Your task to perform on an android device: turn on priority inbox in the gmail app Image 0: 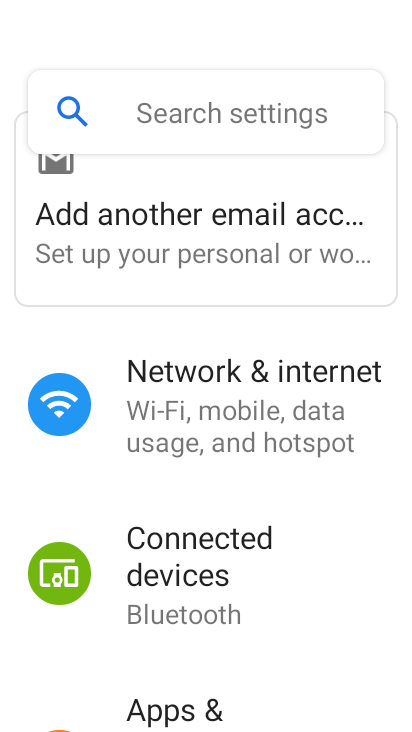
Step 0: press home button
Your task to perform on an android device: turn on priority inbox in the gmail app Image 1: 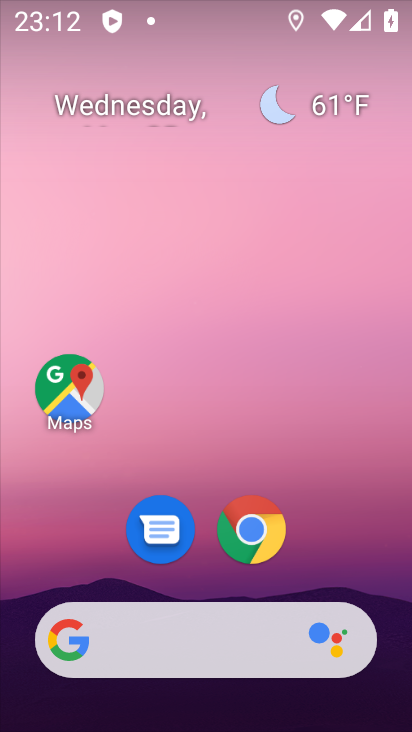
Step 1: drag from (383, 569) to (406, 105)
Your task to perform on an android device: turn on priority inbox in the gmail app Image 2: 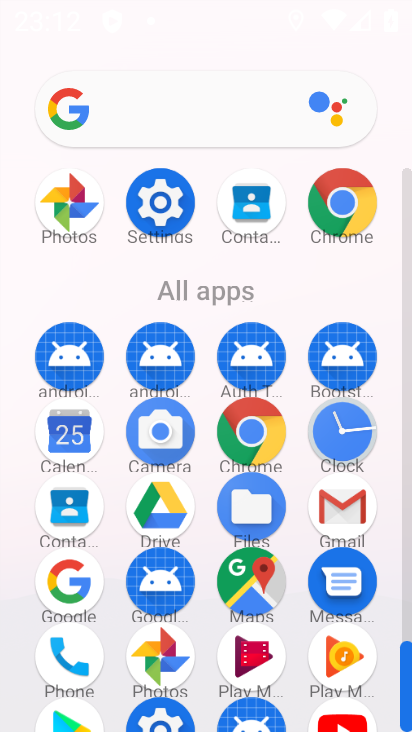
Step 2: click (344, 514)
Your task to perform on an android device: turn on priority inbox in the gmail app Image 3: 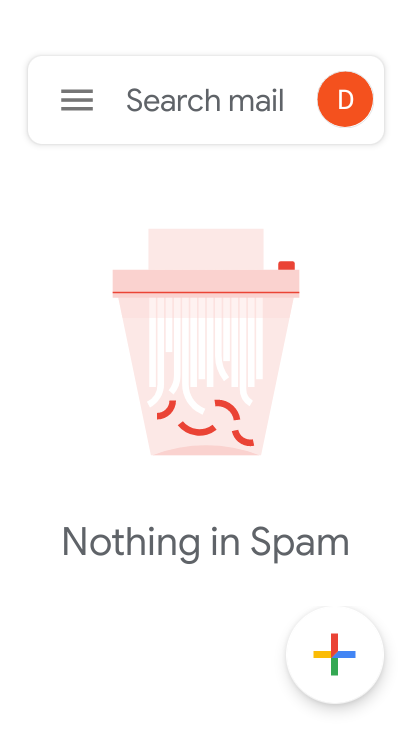
Step 3: click (80, 101)
Your task to perform on an android device: turn on priority inbox in the gmail app Image 4: 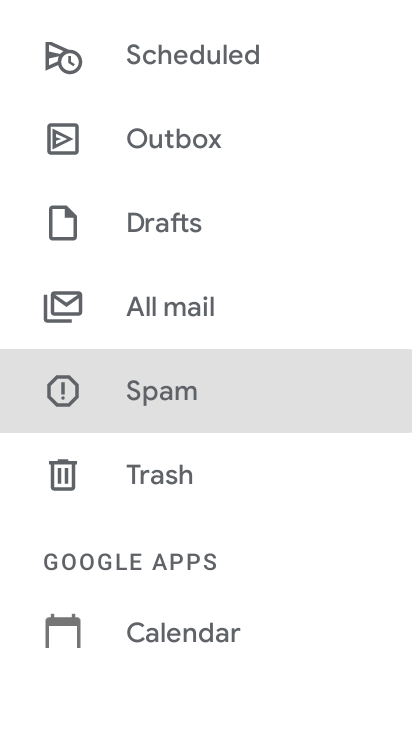
Step 4: drag from (302, 220) to (310, 298)
Your task to perform on an android device: turn on priority inbox in the gmail app Image 5: 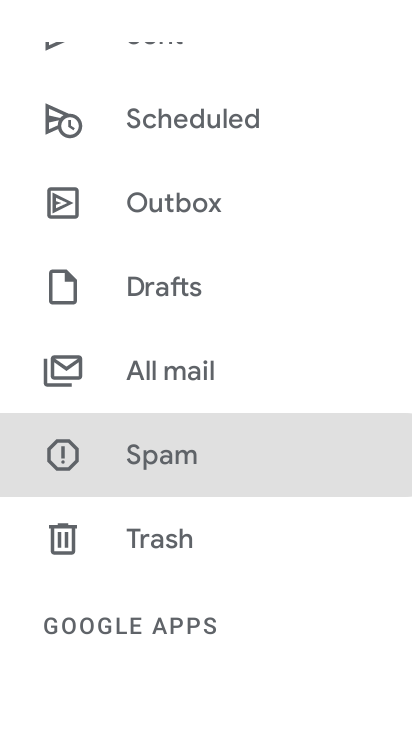
Step 5: drag from (331, 187) to (330, 301)
Your task to perform on an android device: turn on priority inbox in the gmail app Image 6: 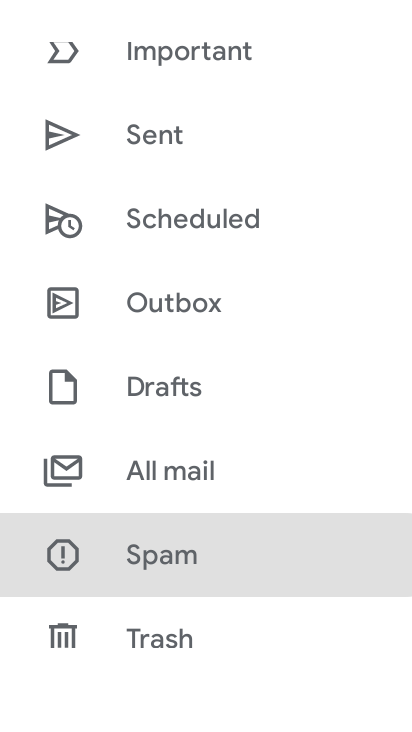
Step 6: drag from (324, 180) to (336, 303)
Your task to perform on an android device: turn on priority inbox in the gmail app Image 7: 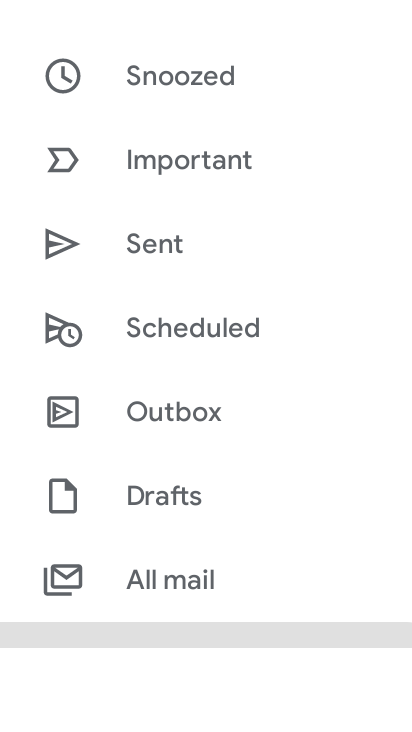
Step 7: drag from (336, 186) to (330, 301)
Your task to perform on an android device: turn on priority inbox in the gmail app Image 8: 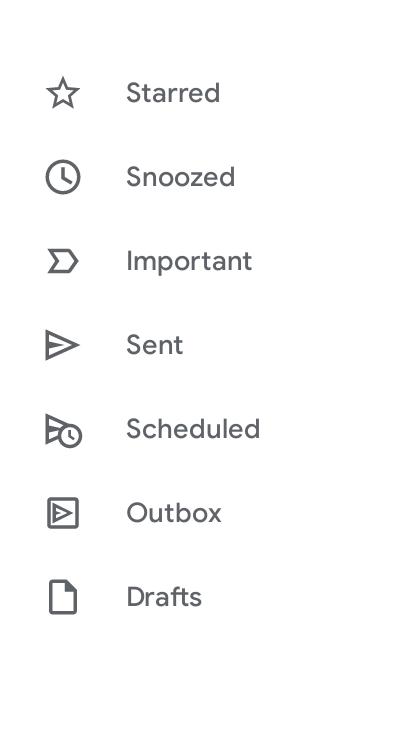
Step 8: drag from (309, 164) to (309, 307)
Your task to perform on an android device: turn on priority inbox in the gmail app Image 9: 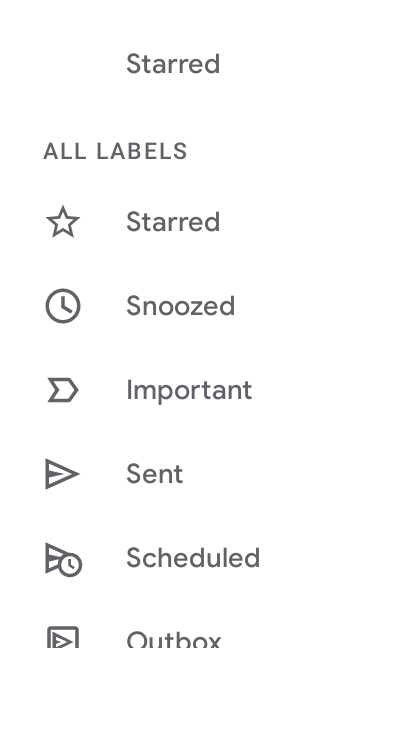
Step 9: drag from (303, 197) to (307, 318)
Your task to perform on an android device: turn on priority inbox in the gmail app Image 10: 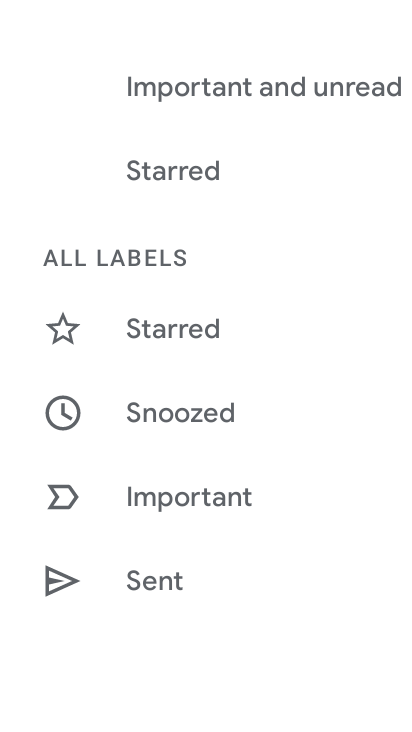
Step 10: drag from (309, 186) to (315, 285)
Your task to perform on an android device: turn on priority inbox in the gmail app Image 11: 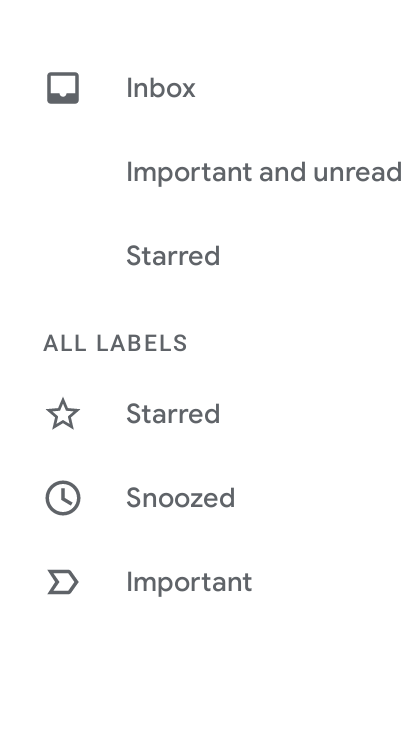
Step 11: drag from (304, 140) to (298, 253)
Your task to perform on an android device: turn on priority inbox in the gmail app Image 12: 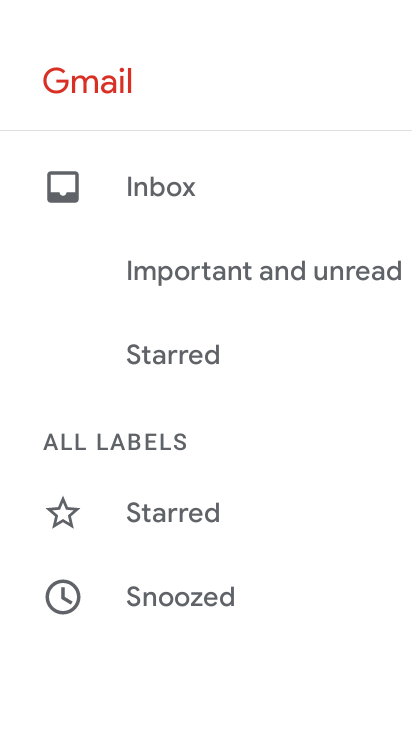
Step 12: drag from (286, 155) to (287, 259)
Your task to perform on an android device: turn on priority inbox in the gmail app Image 13: 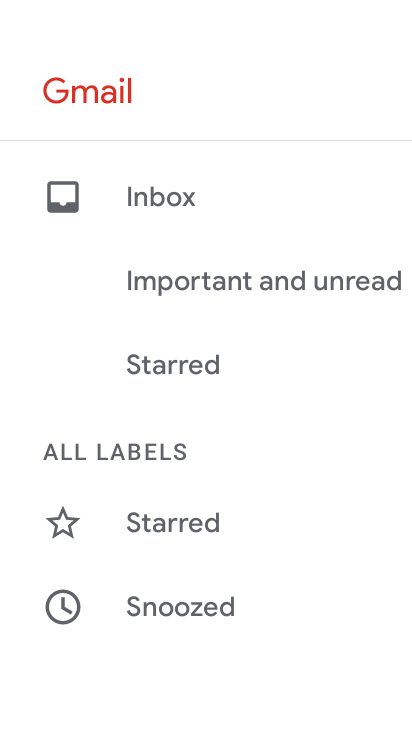
Step 13: drag from (291, 422) to (321, 285)
Your task to perform on an android device: turn on priority inbox in the gmail app Image 14: 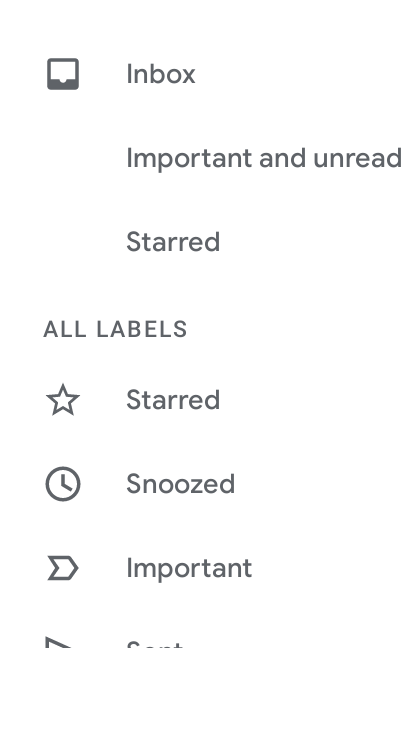
Step 14: drag from (314, 459) to (316, 375)
Your task to perform on an android device: turn on priority inbox in the gmail app Image 15: 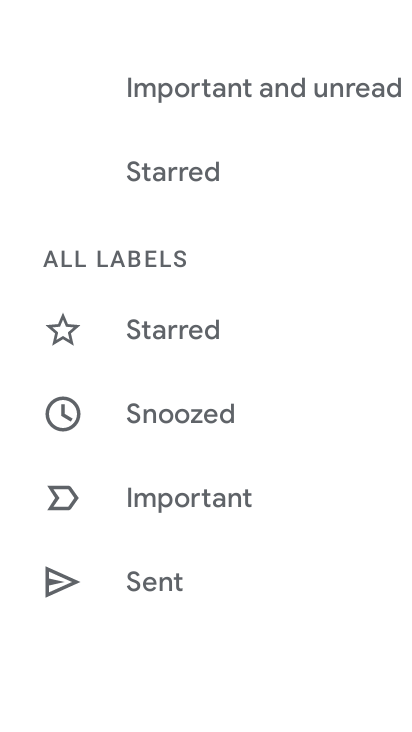
Step 15: drag from (314, 517) to (321, 418)
Your task to perform on an android device: turn on priority inbox in the gmail app Image 16: 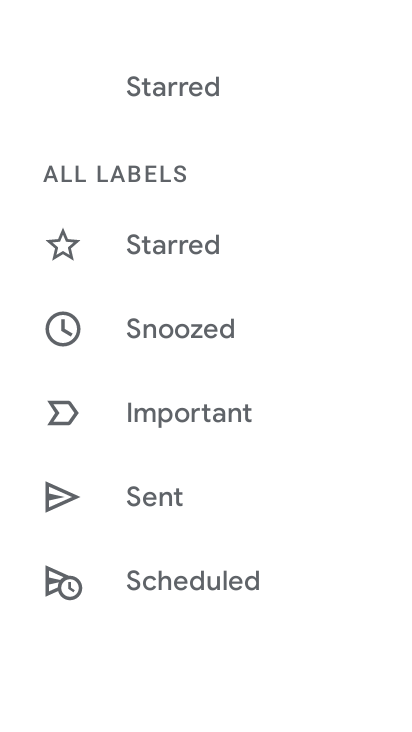
Step 16: drag from (328, 521) to (341, 396)
Your task to perform on an android device: turn on priority inbox in the gmail app Image 17: 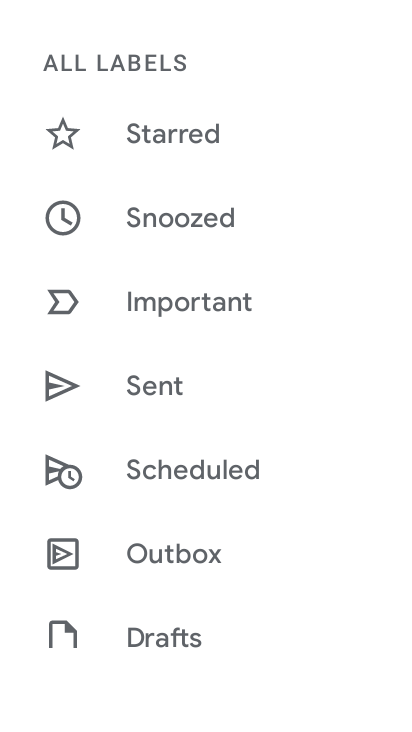
Step 17: drag from (332, 521) to (336, 438)
Your task to perform on an android device: turn on priority inbox in the gmail app Image 18: 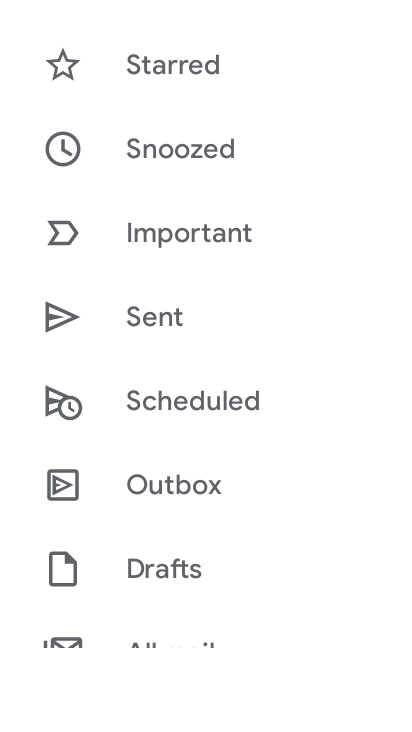
Step 18: drag from (318, 548) to (317, 454)
Your task to perform on an android device: turn on priority inbox in the gmail app Image 19: 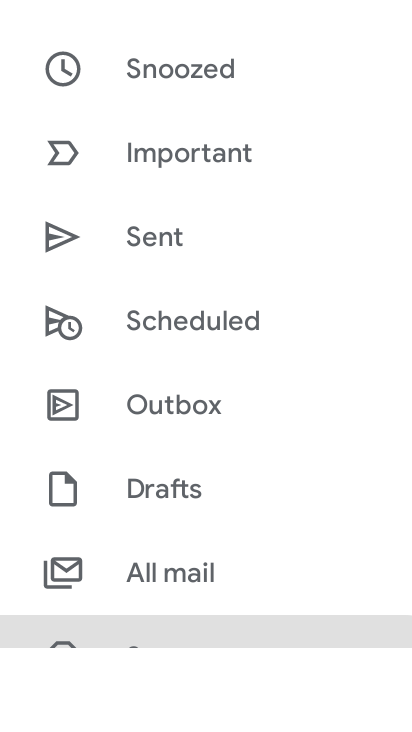
Step 19: drag from (319, 554) to (331, 411)
Your task to perform on an android device: turn on priority inbox in the gmail app Image 20: 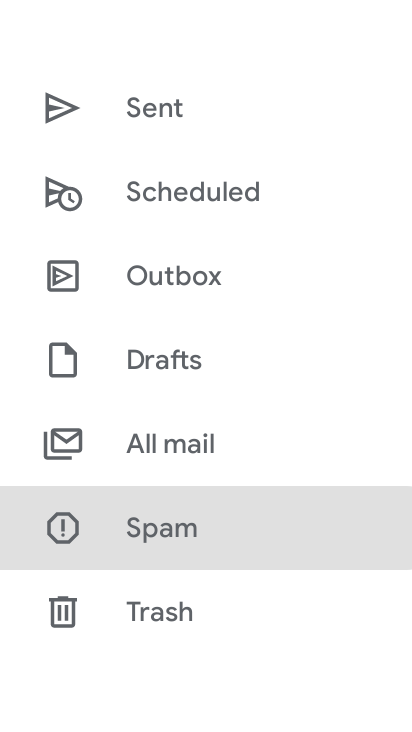
Step 20: drag from (327, 583) to (325, 441)
Your task to perform on an android device: turn on priority inbox in the gmail app Image 21: 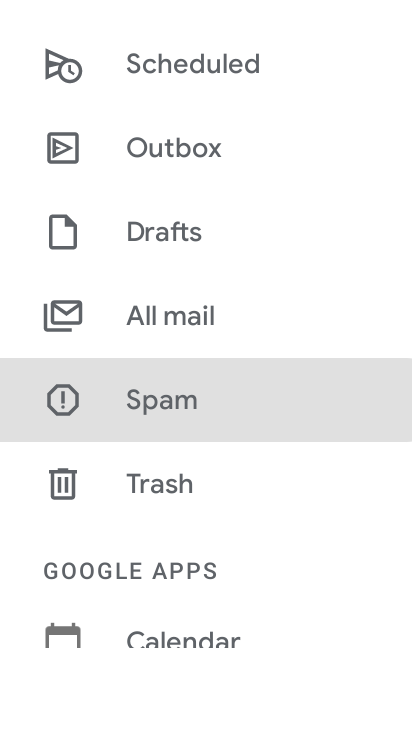
Step 21: drag from (322, 556) to (326, 454)
Your task to perform on an android device: turn on priority inbox in the gmail app Image 22: 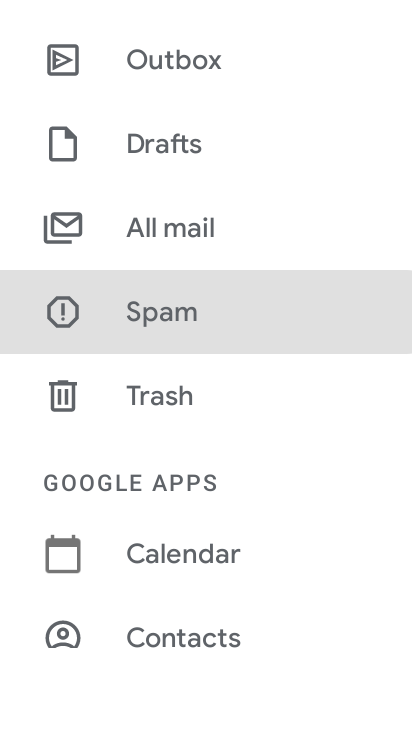
Step 22: drag from (327, 569) to (324, 448)
Your task to perform on an android device: turn on priority inbox in the gmail app Image 23: 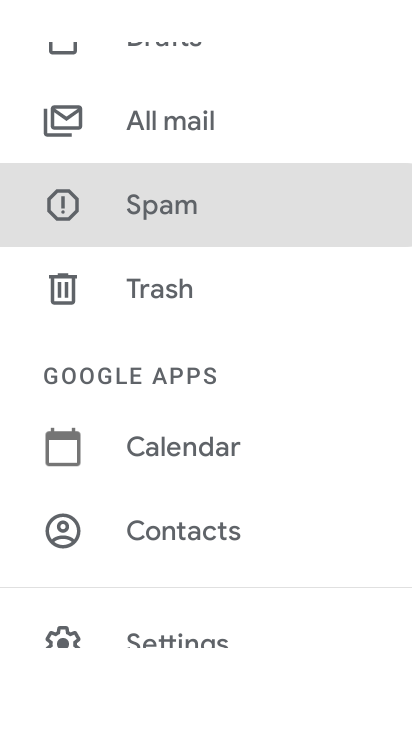
Step 23: drag from (311, 599) to (317, 443)
Your task to perform on an android device: turn on priority inbox in the gmail app Image 24: 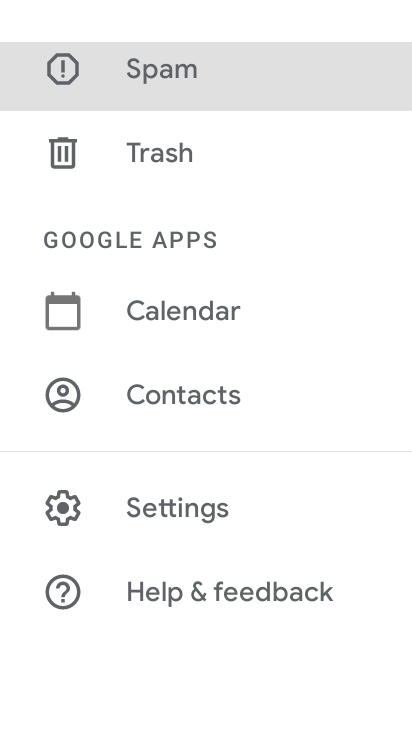
Step 24: drag from (344, 607) to (349, 486)
Your task to perform on an android device: turn on priority inbox in the gmail app Image 25: 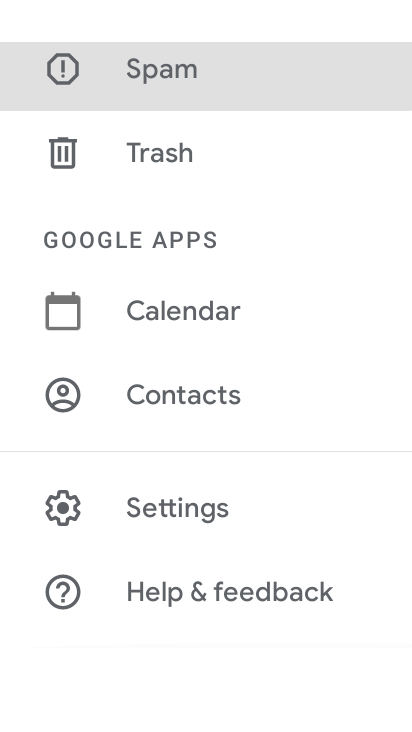
Step 25: click (243, 487)
Your task to perform on an android device: turn on priority inbox in the gmail app Image 26: 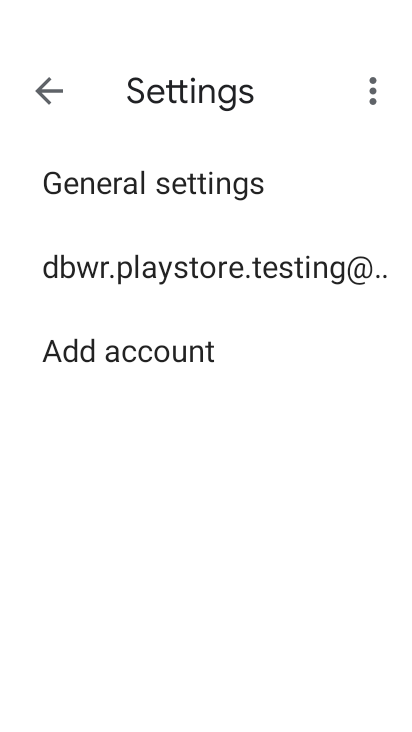
Step 26: click (310, 283)
Your task to perform on an android device: turn on priority inbox in the gmail app Image 27: 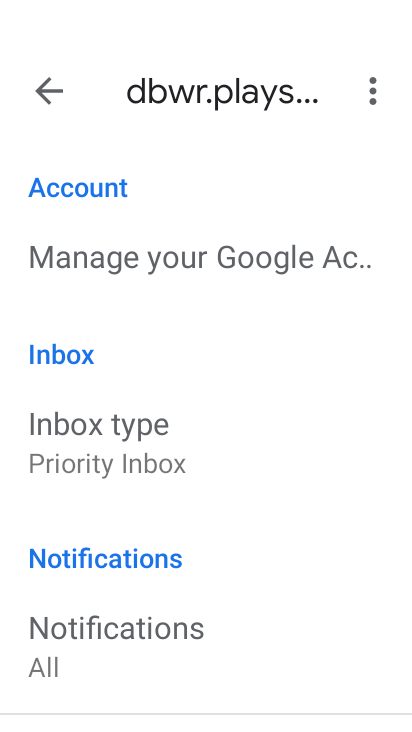
Step 27: click (159, 458)
Your task to perform on an android device: turn on priority inbox in the gmail app Image 28: 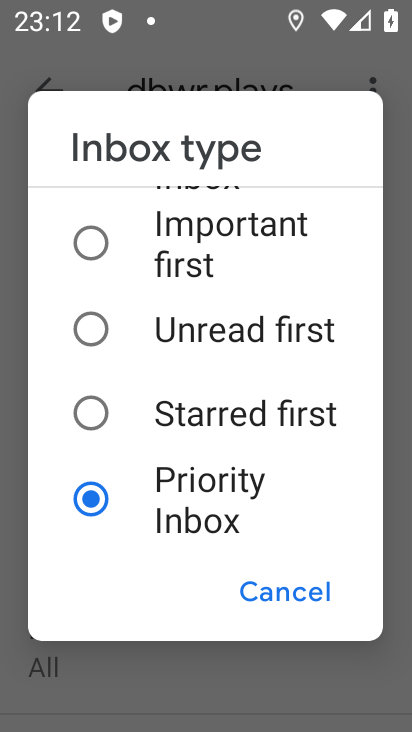
Step 28: task complete